Your task to perform on an android device: install app "Move to iOS" Image 0: 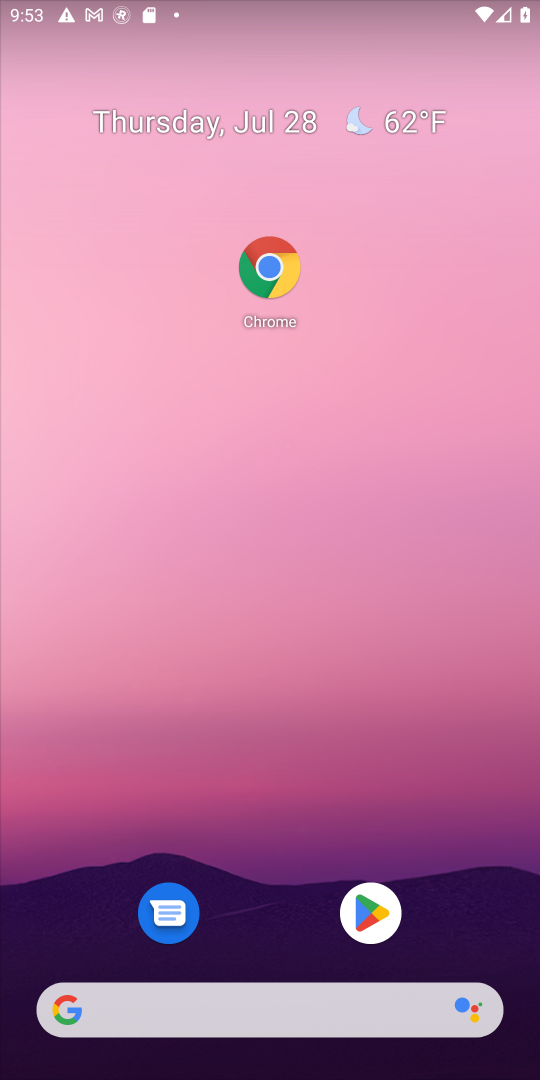
Step 0: press home button
Your task to perform on an android device: install app "Move to iOS" Image 1: 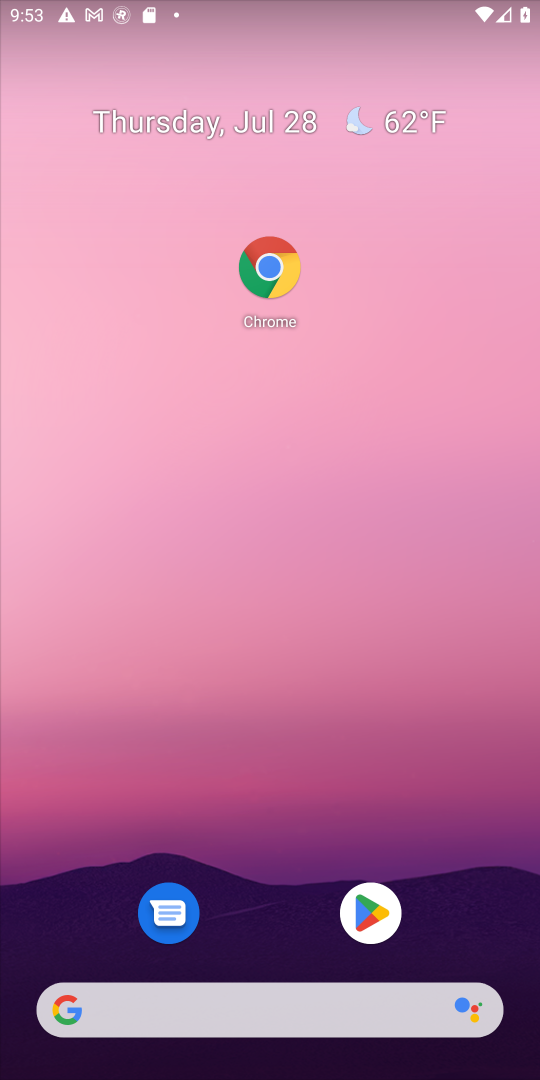
Step 1: click (362, 902)
Your task to perform on an android device: install app "Move to iOS" Image 2: 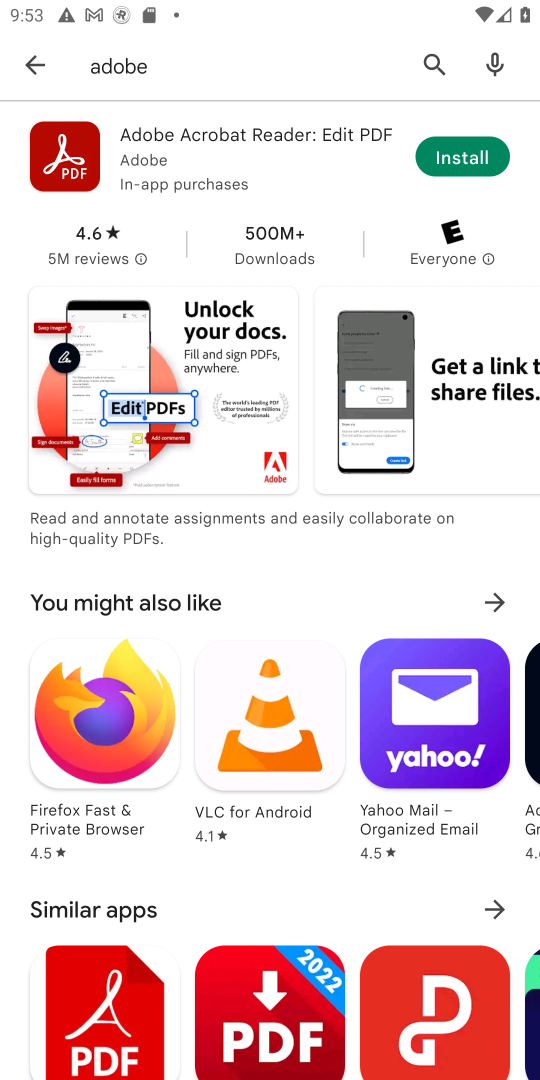
Step 2: click (431, 67)
Your task to perform on an android device: install app "Move to iOS" Image 3: 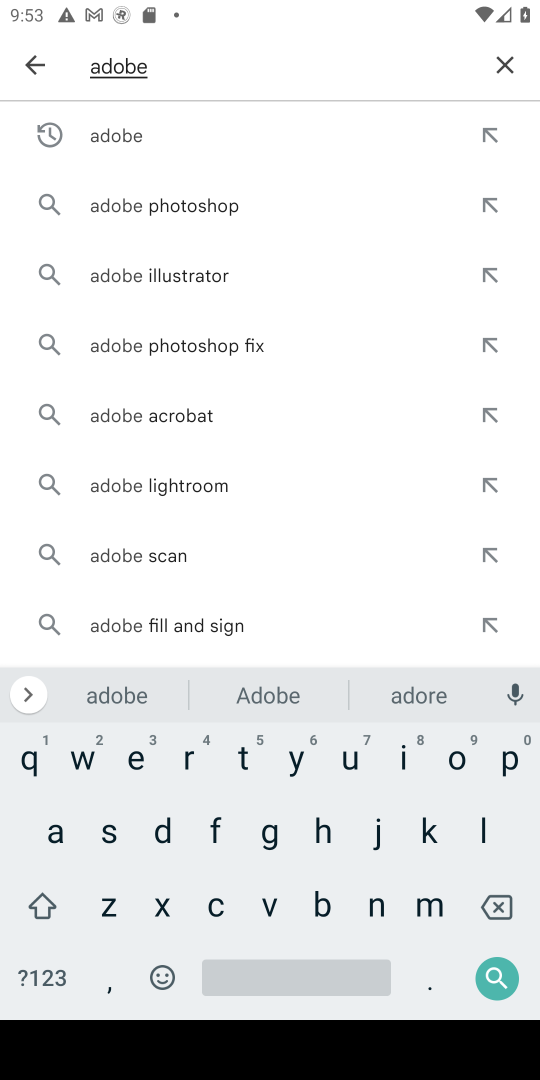
Step 3: click (501, 65)
Your task to perform on an android device: install app "Move to iOS" Image 4: 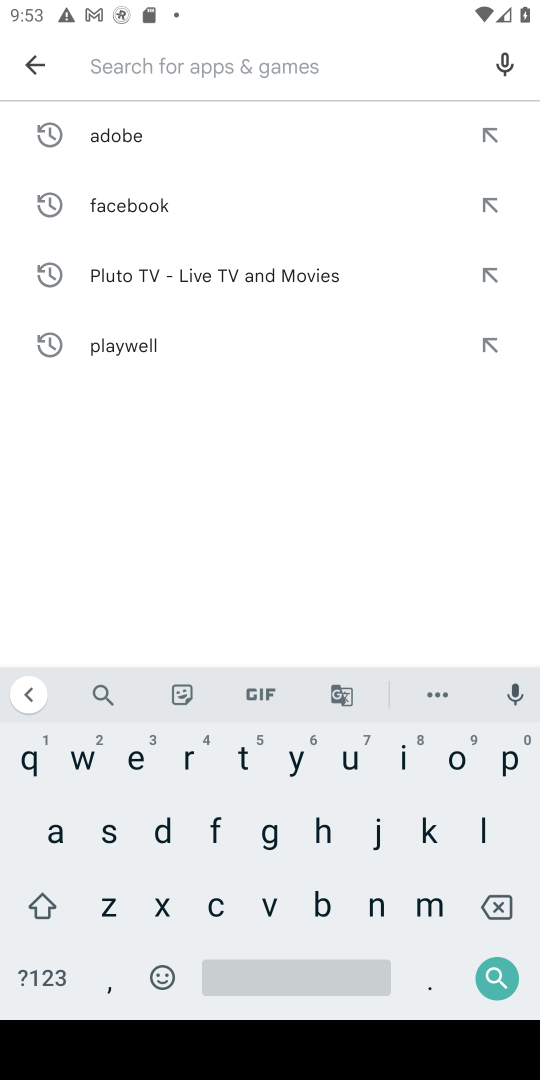
Step 4: click (427, 909)
Your task to perform on an android device: install app "Move to iOS" Image 5: 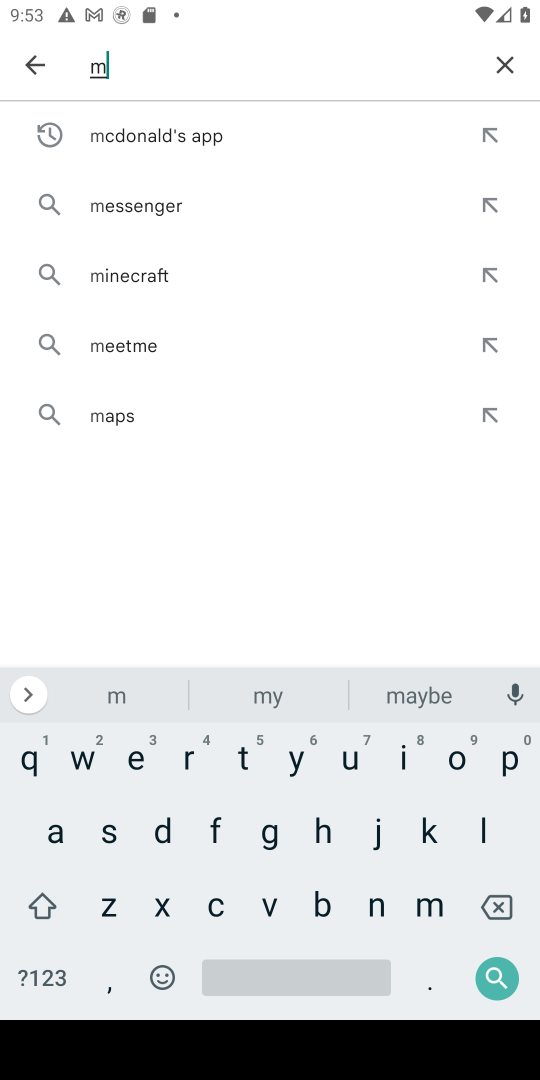
Step 5: click (454, 752)
Your task to perform on an android device: install app "Move to iOS" Image 6: 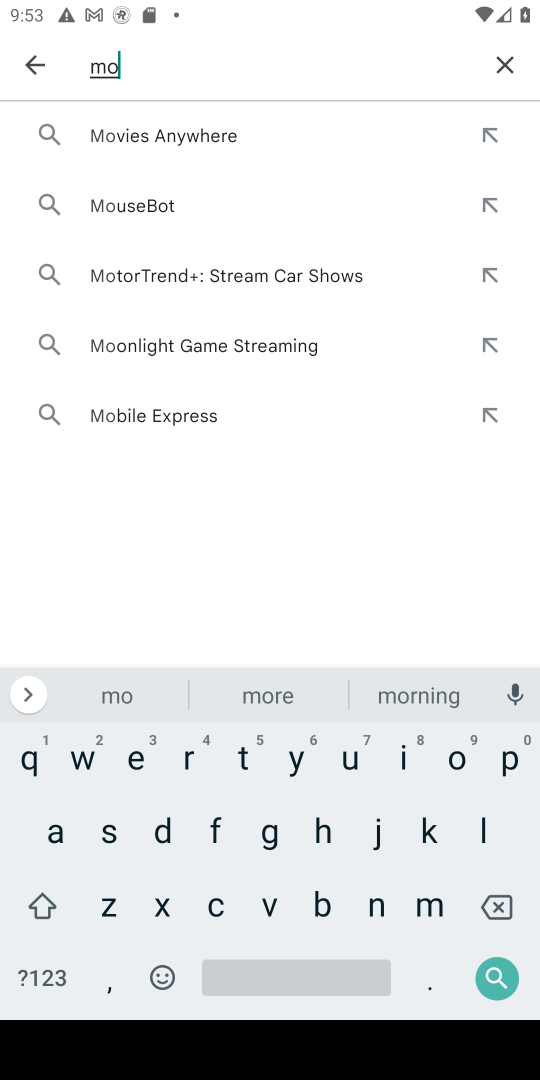
Step 6: click (262, 898)
Your task to perform on an android device: install app "Move to iOS" Image 7: 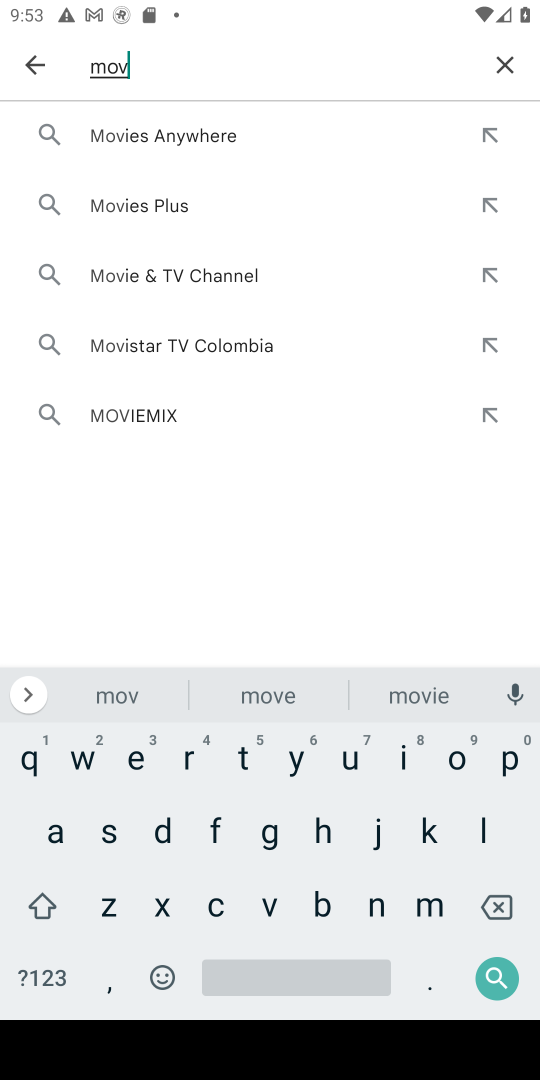
Step 7: click (128, 759)
Your task to perform on an android device: install app "Move to iOS" Image 8: 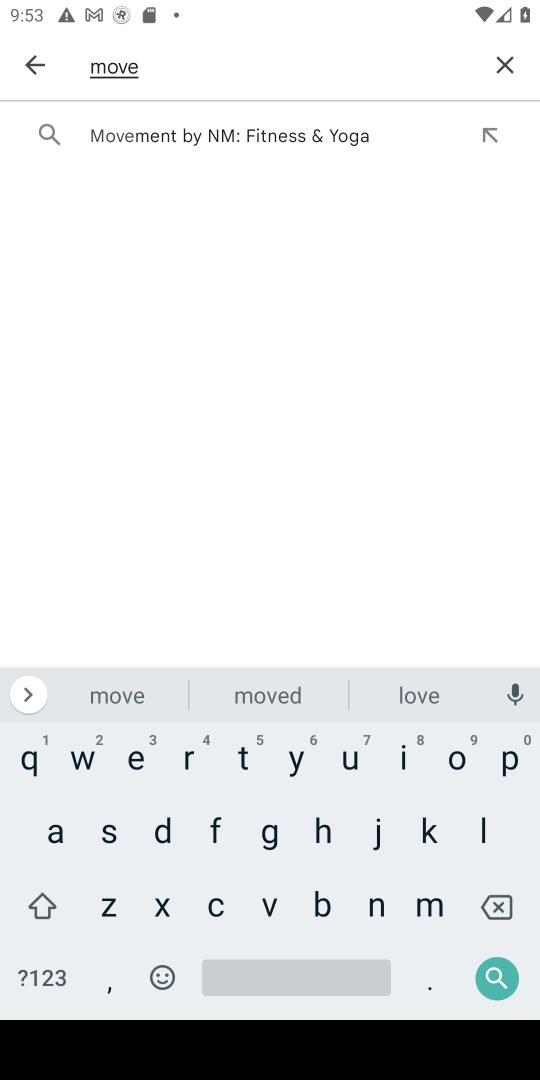
Step 8: click (291, 966)
Your task to perform on an android device: install app "Move to iOS" Image 9: 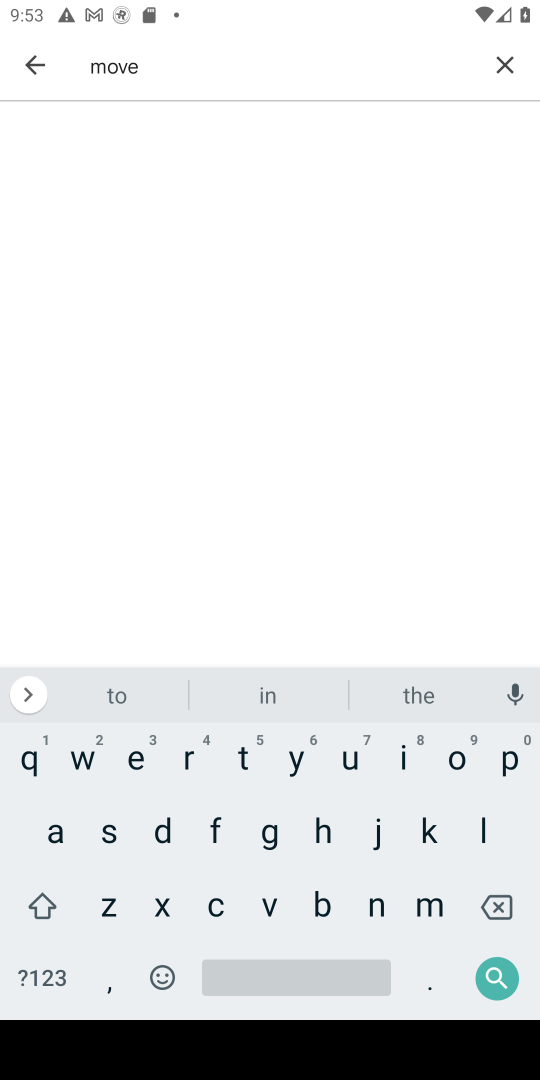
Step 9: click (244, 761)
Your task to perform on an android device: install app "Move to iOS" Image 10: 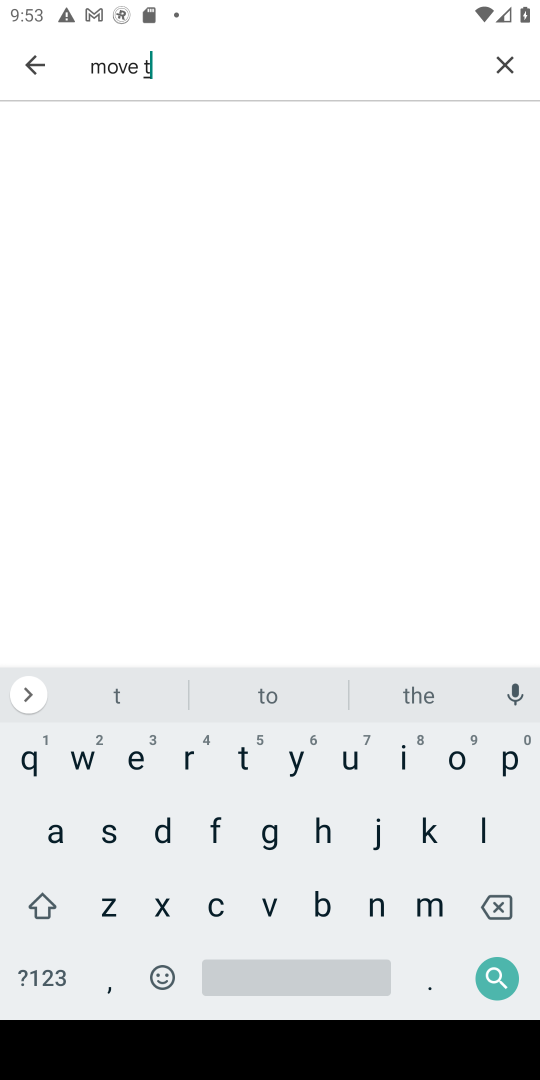
Step 10: click (453, 754)
Your task to perform on an android device: install app "Move to iOS" Image 11: 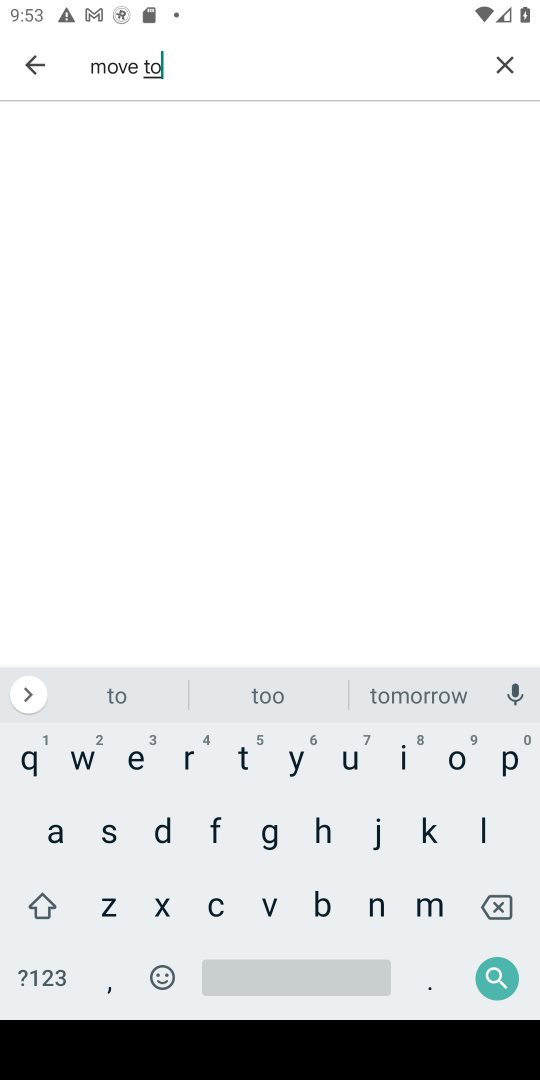
Step 11: click (322, 982)
Your task to perform on an android device: install app "Move to iOS" Image 12: 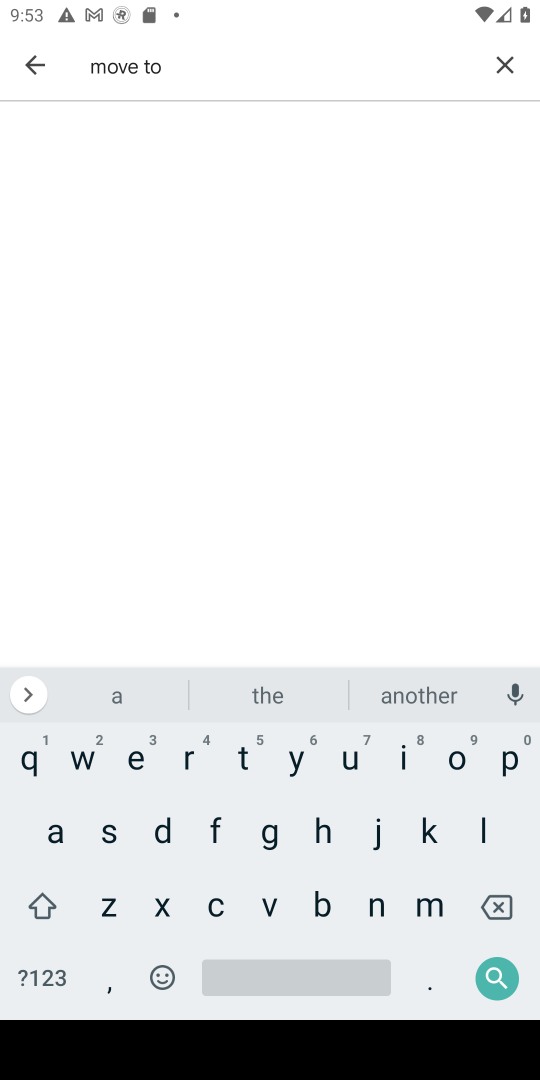
Step 12: click (402, 757)
Your task to perform on an android device: install app "Move to iOS" Image 13: 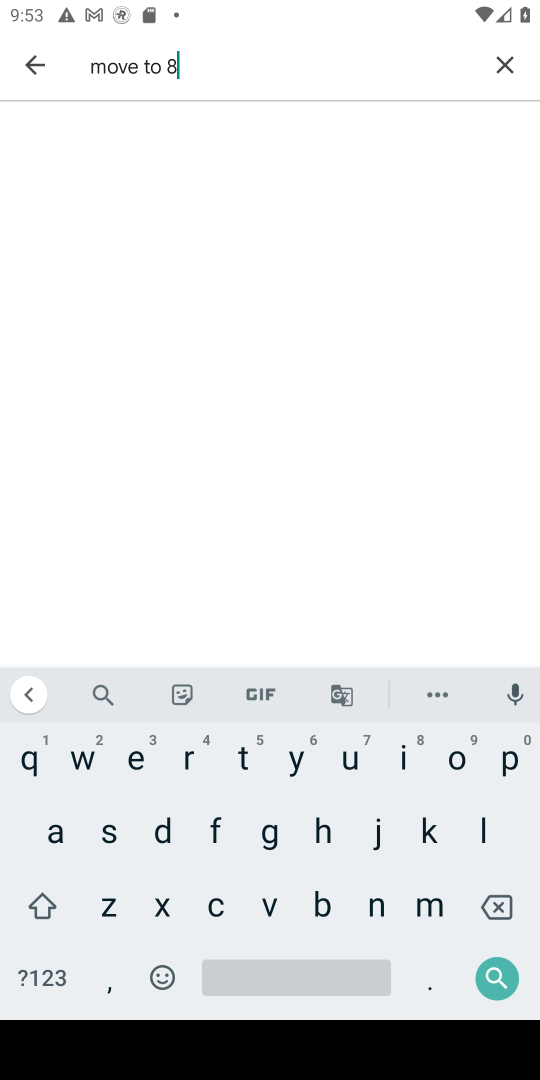
Step 13: click (491, 900)
Your task to perform on an android device: install app "Move to iOS" Image 14: 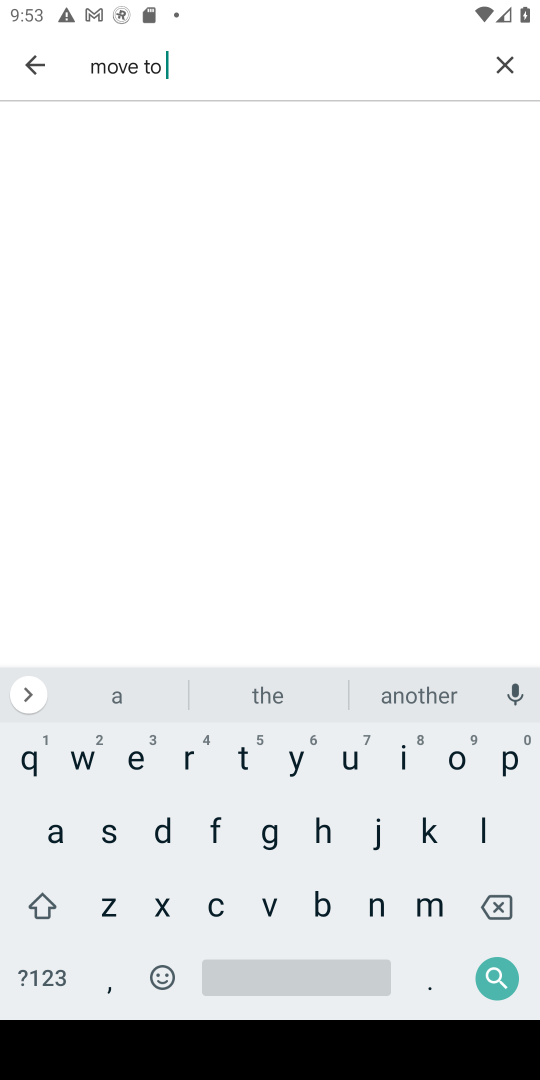
Step 14: click (400, 762)
Your task to perform on an android device: install app "Move to iOS" Image 15: 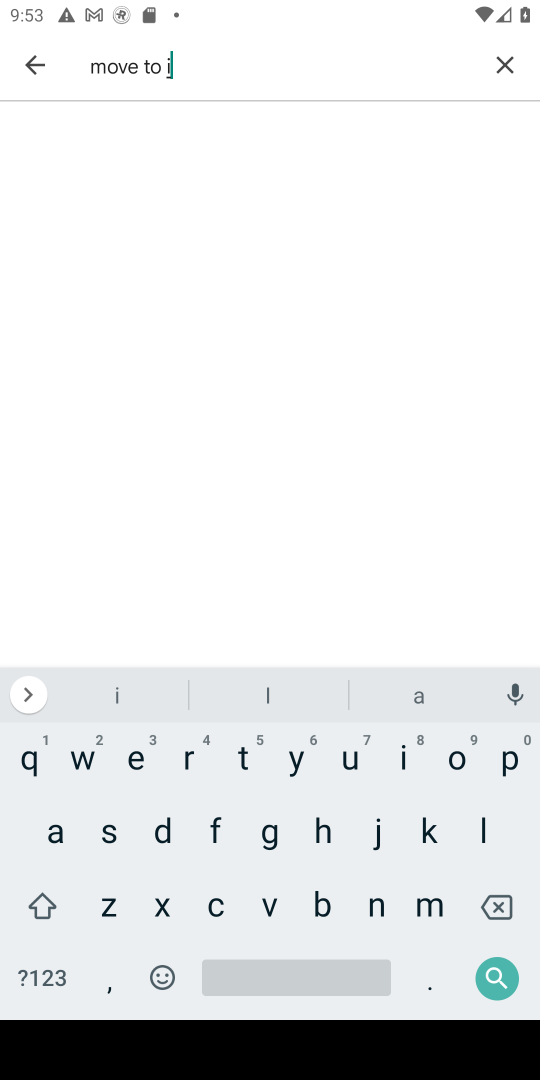
Step 15: click (460, 765)
Your task to perform on an android device: install app "Move to iOS" Image 16: 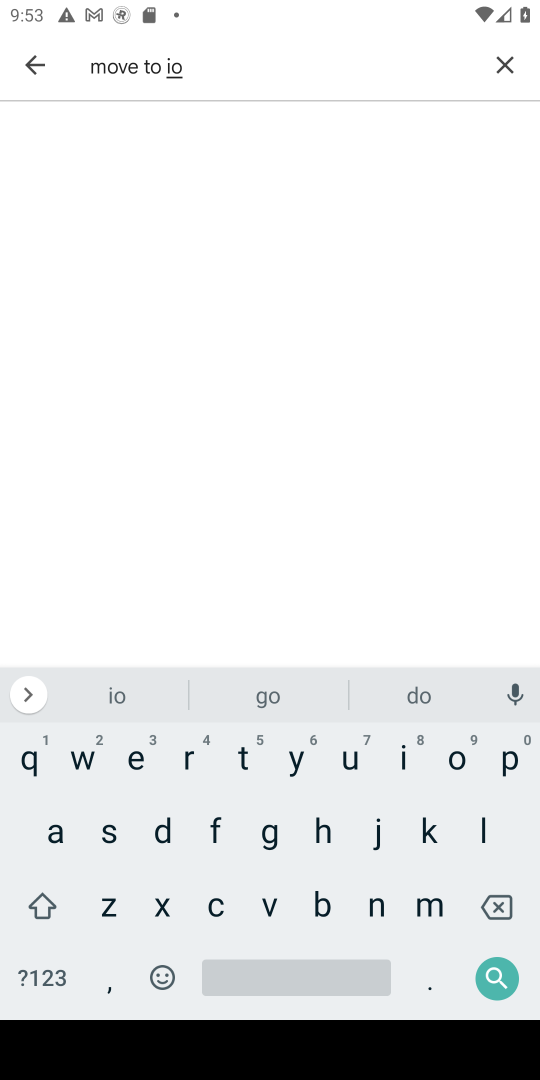
Step 16: click (101, 830)
Your task to perform on an android device: install app "Move to iOS" Image 17: 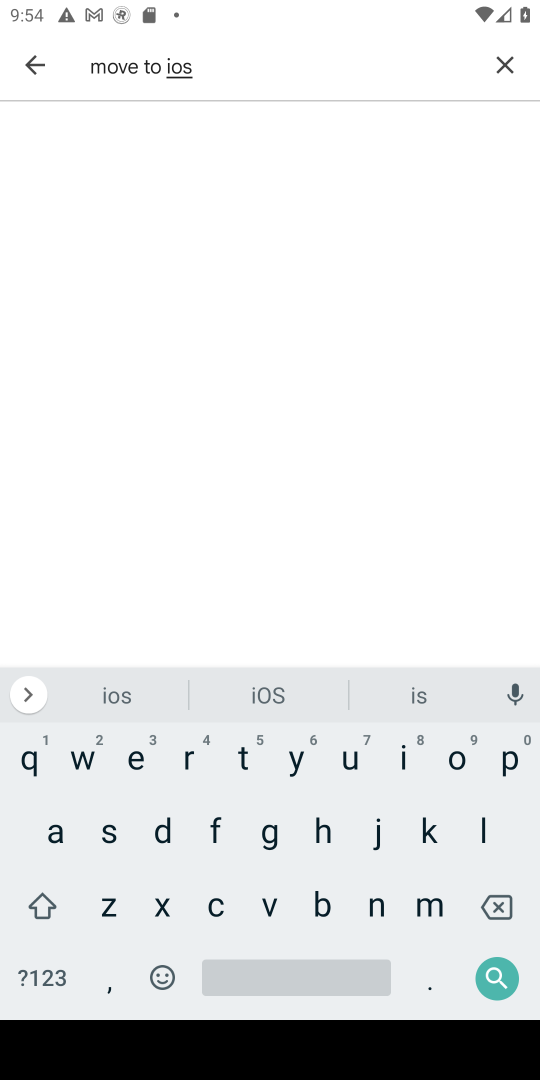
Step 17: click (487, 980)
Your task to perform on an android device: install app "Move to iOS" Image 18: 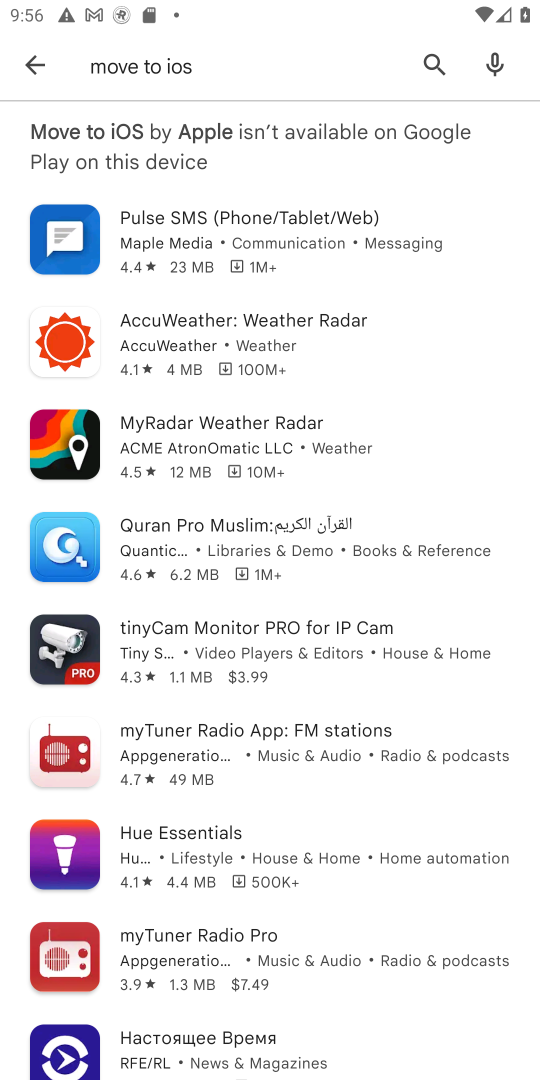
Step 18: task complete